Your task to perform on an android device: Search for seafood restaurants on Google Maps Image 0: 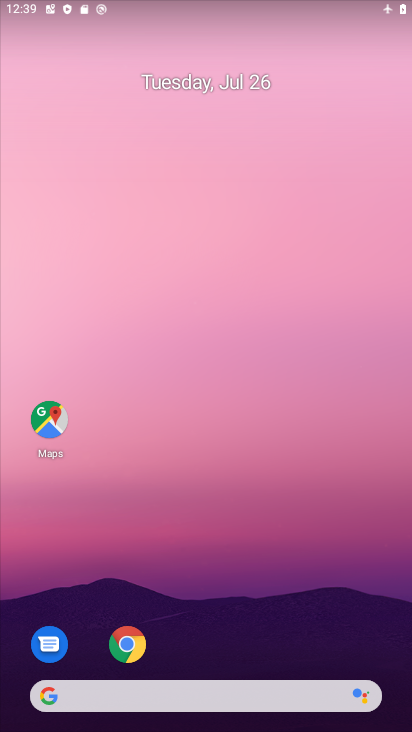
Step 0: drag from (168, 595) to (226, 97)
Your task to perform on an android device: Search for seafood restaurants on Google Maps Image 1: 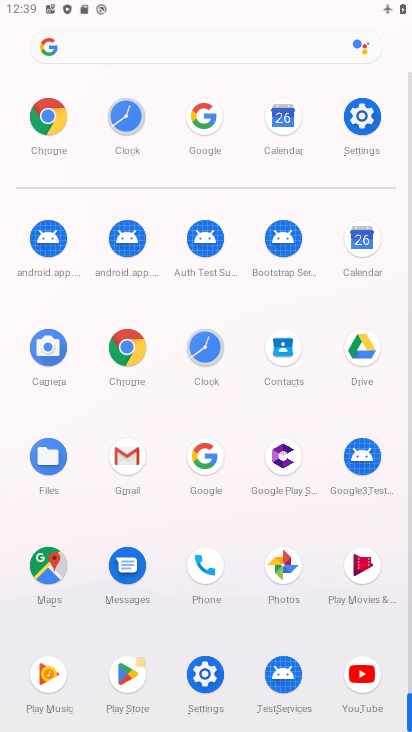
Step 1: click (45, 579)
Your task to perform on an android device: Search for seafood restaurants on Google Maps Image 2: 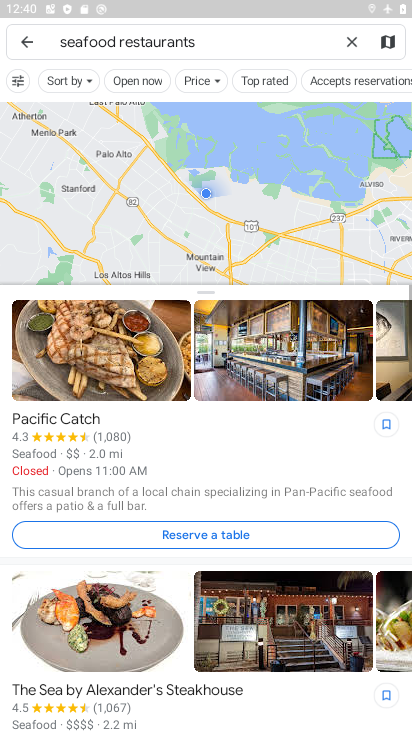
Step 2: task complete